Your task to perform on an android device: create a new album in the google photos Image 0: 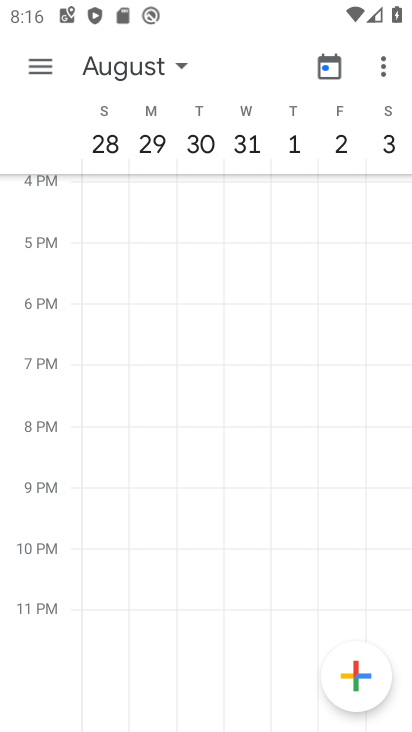
Step 0: task complete